Your task to perform on an android device: Open calendar and show me the third week of next month Image 0: 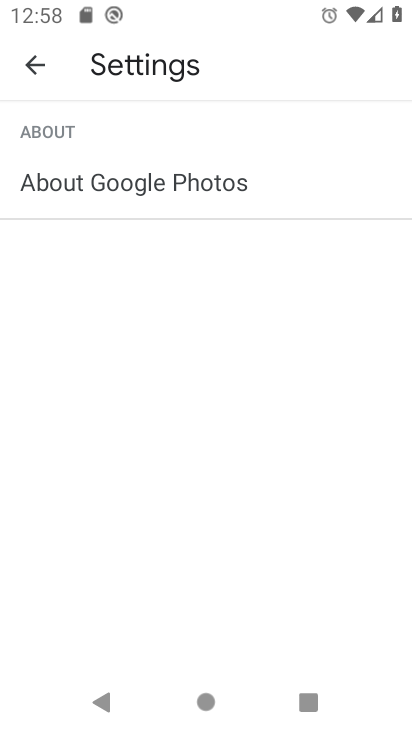
Step 0: press home button
Your task to perform on an android device: Open calendar and show me the third week of next month Image 1: 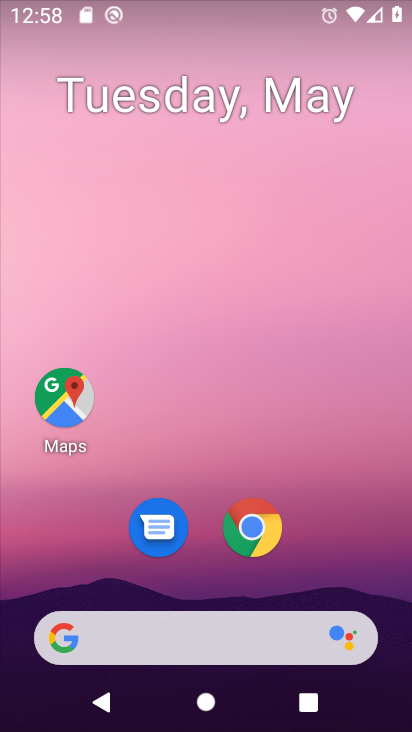
Step 1: drag from (249, 682) to (258, 233)
Your task to perform on an android device: Open calendar and show me the third week of next month Image 2: 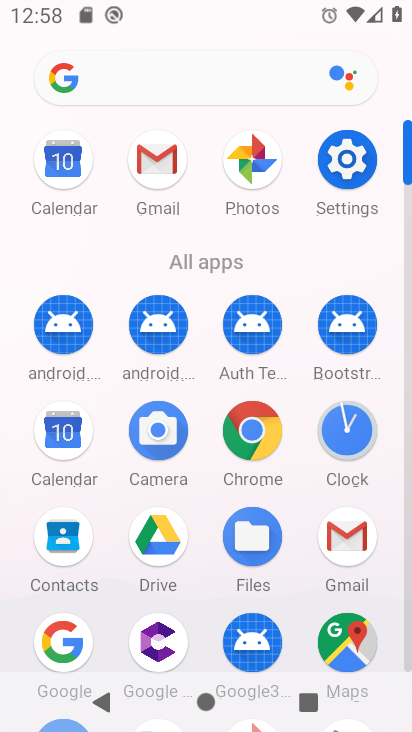
Step 2: click (30, 447)
Your task to perform on an android device: Open calendar and show me the third week of next month Image 3: 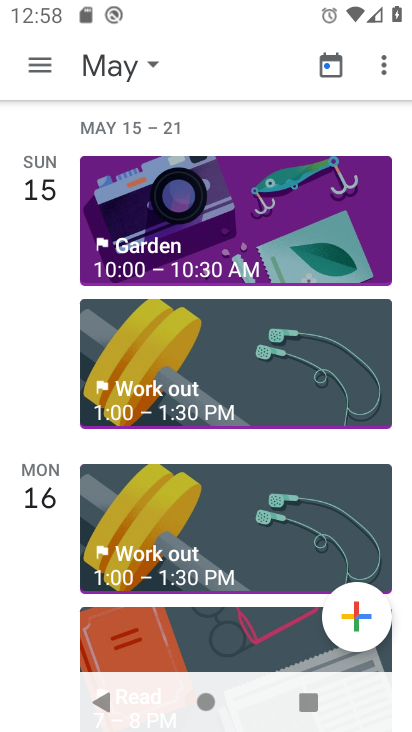
Step 3: drag from (131, 58) to (214, 464)
Your task to perform on an android device: Open calendar and show me the third week of next month Image 4: 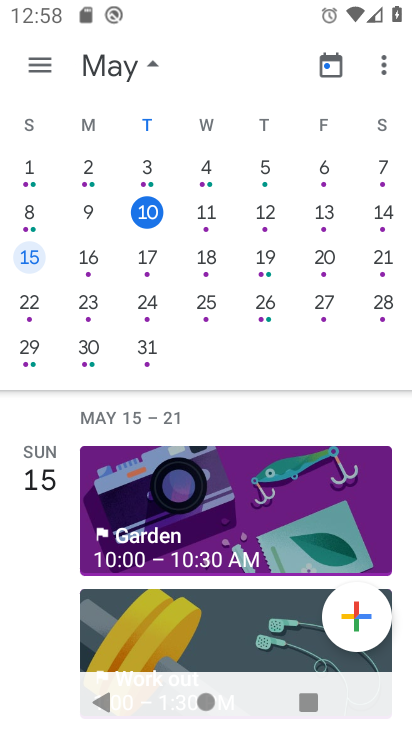
Step 4: drag from (380, 278) to (14, 336)
Your task to perform on an android device: Open calendar and show me the third week of next month Image 5: 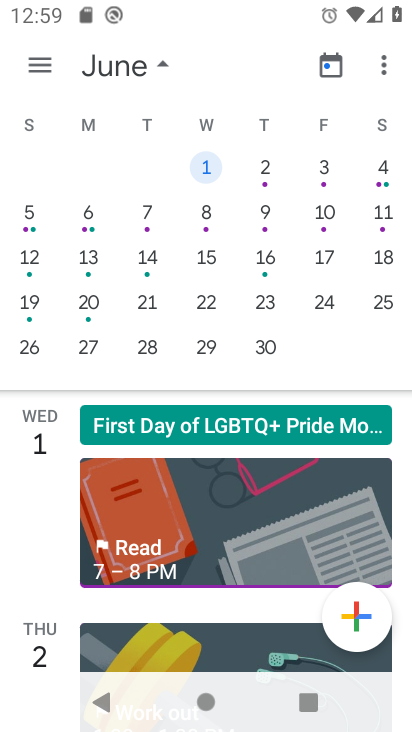
Step 5: click (31, 261)
Your task to perform on an android device: Open calendar and show me the third week of next month Image 6: 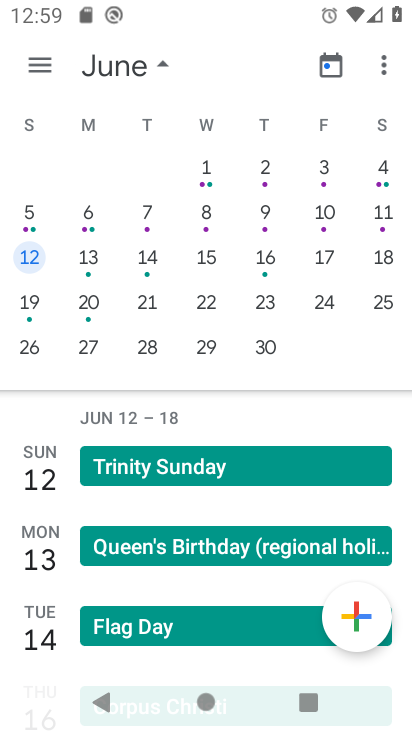
Step 6: task complete